Your task to perform on an android device: Turn on the flashlight Image 0: 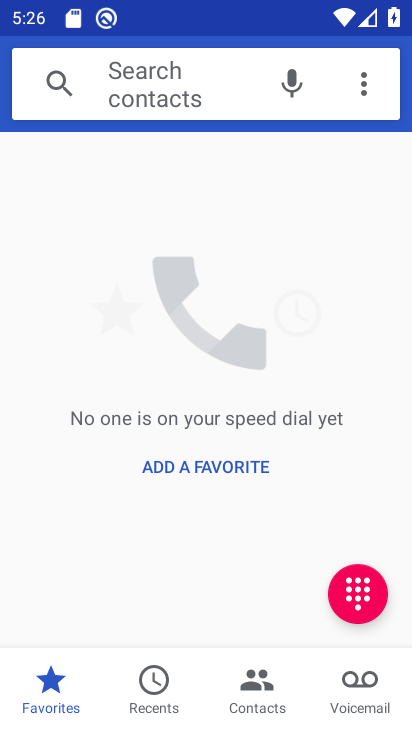
Step 0: press home button
Your task to perform on an android device: Turn on the flashlight Image 1: 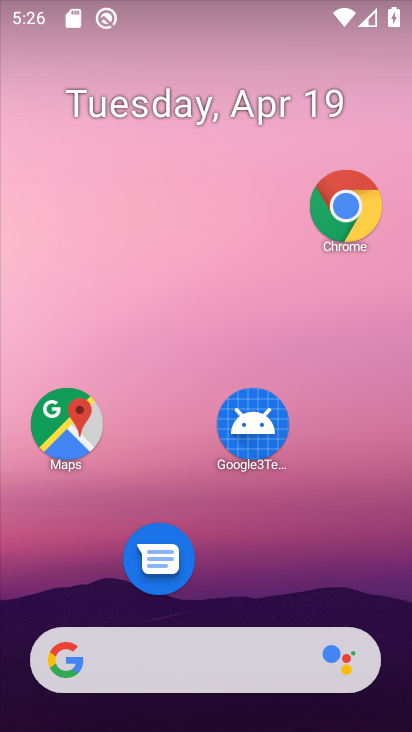
Step 1: task complete